Your task to perform on an android device: Go to settings Image 0: 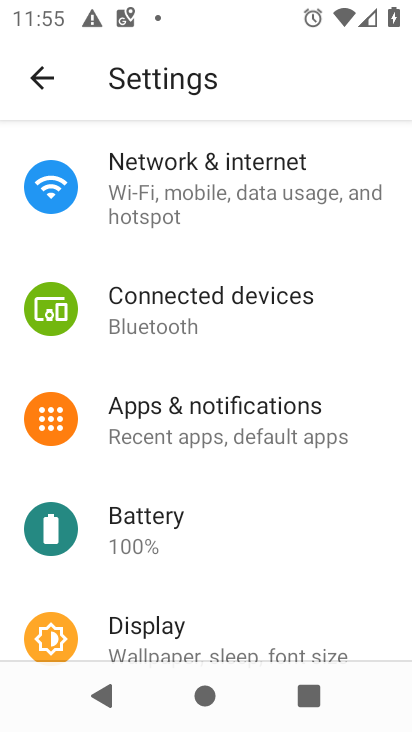
Step 0: task complete